Your task to perform on an android device: toggle priority inbox in the gmail app Image 0: 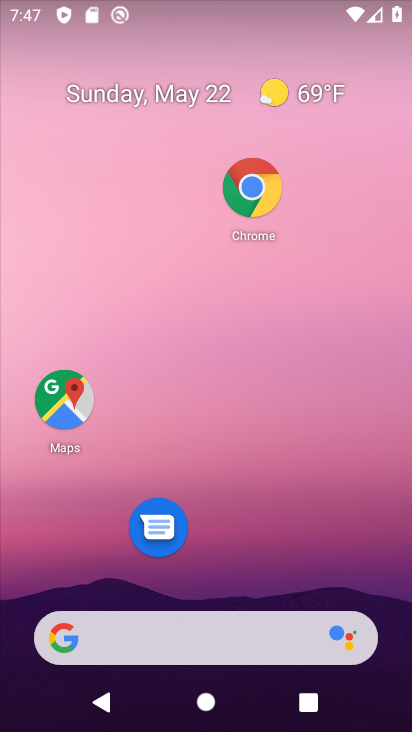
Step 0: press home button
Your task to perform on an android device: toggle priority inbox in the gmail app Image 1: 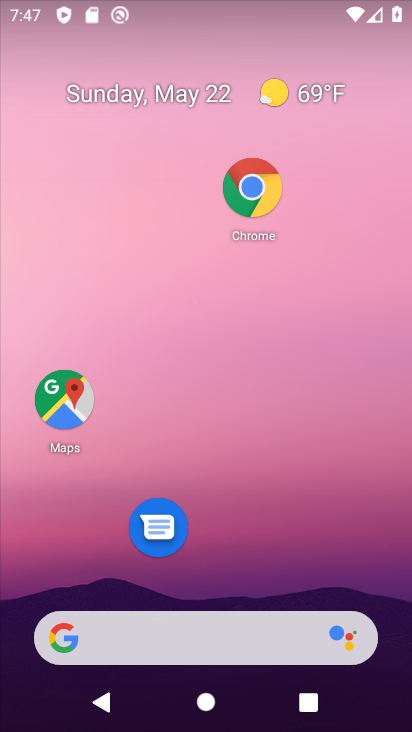
Step 1: drag from (213, 575) to (248, 12)
Your task to perform on an android device: toggle priority inbox in the gmail app Image 2: 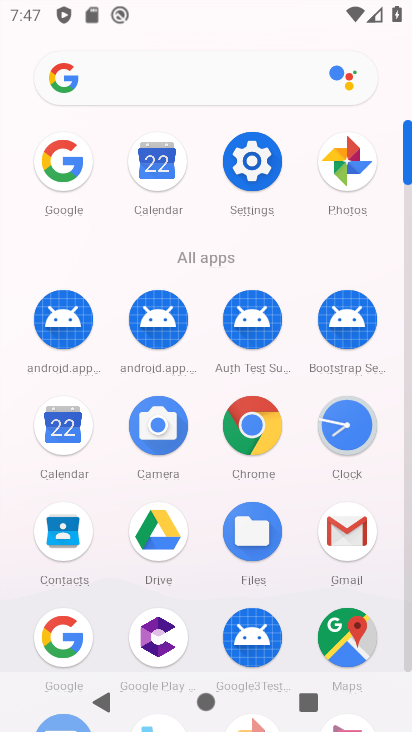
Step 2: click (347, 535)
Your task to perform on an android device: toggle priority inbox in the gmail app Image 3: 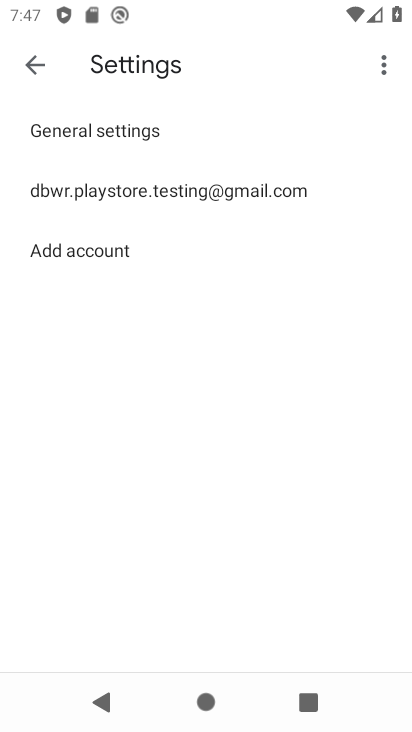
Step 3: click (150, 123)
Your task to perform on an android device: toggle priority inbox in the gmail app Image 4: 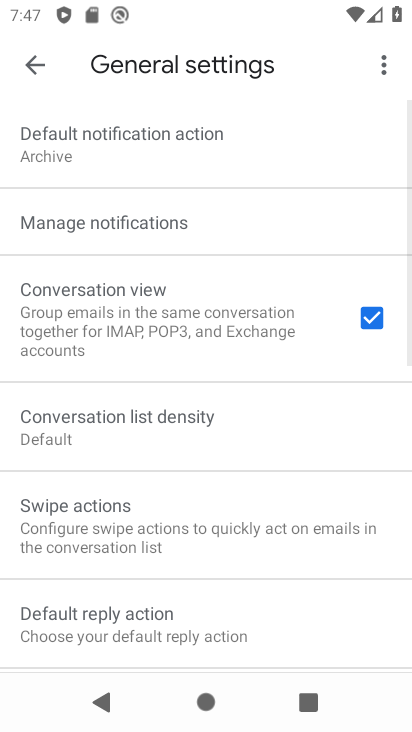
Step 4: click (37, 58)
Your task to perform on an android device: toggle priority inbox in the gmail app Image 5: 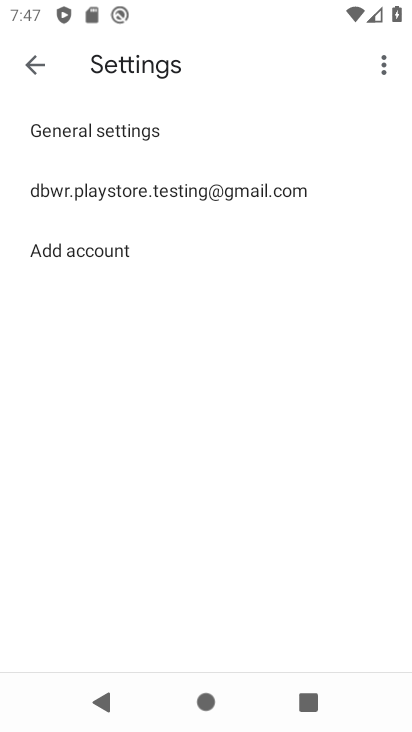
Step 5: click (117, 192)
Your task to perform on an android device: toggle priority inbox in the gmail app Image 6: 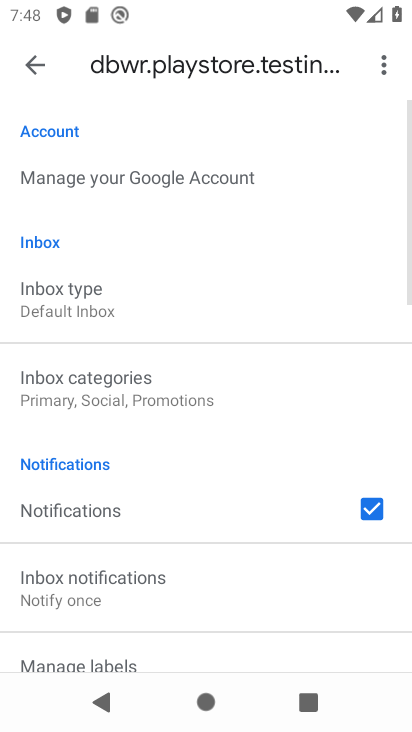
Step 6: click (121, 300)
Your task to perform on an android device: toggle priority inbox in the gmail app Image 7: 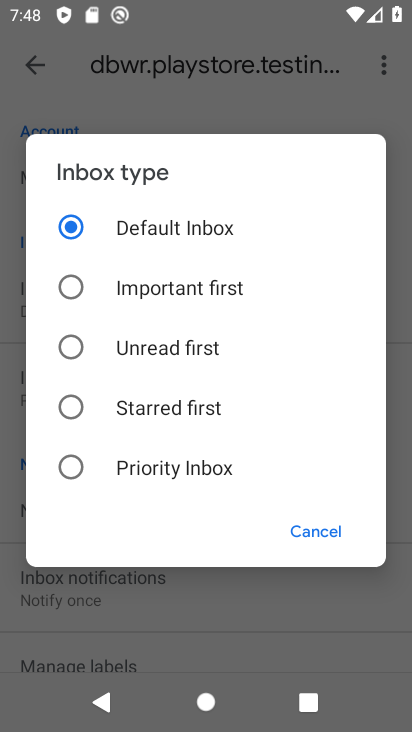
Step 7: click (85, 468)
Your task to perform on an android device: toggle priority inbox in the gmail app Image 8: 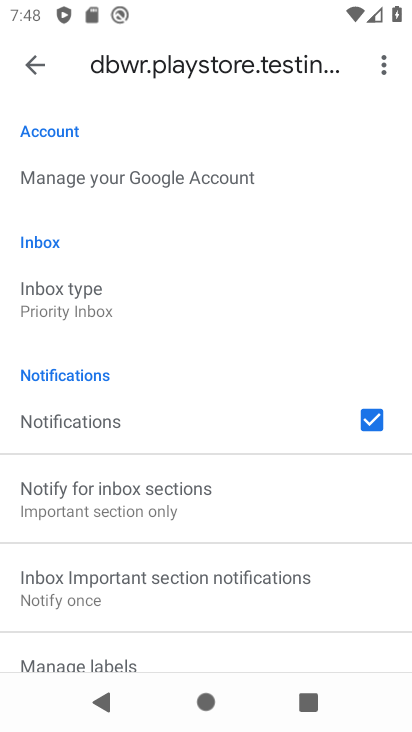
Step 8: task complete